Your task to perform on an android device: Open calendar and show me the first week of next month Image 0: 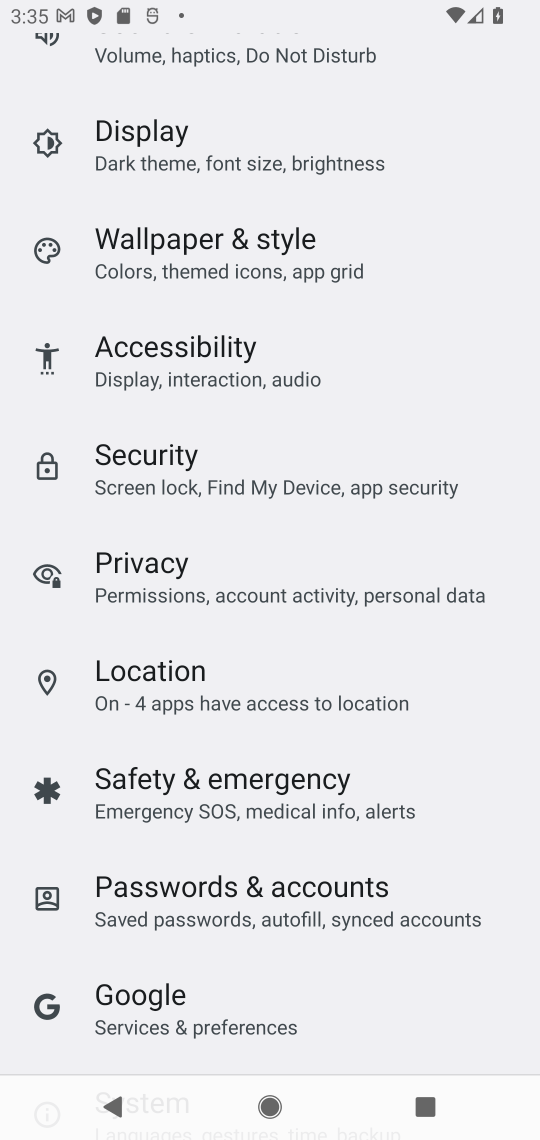
Step 0: press home button
Your task to perform on an android device: Open calendar and show me the first week of next month Image 1: 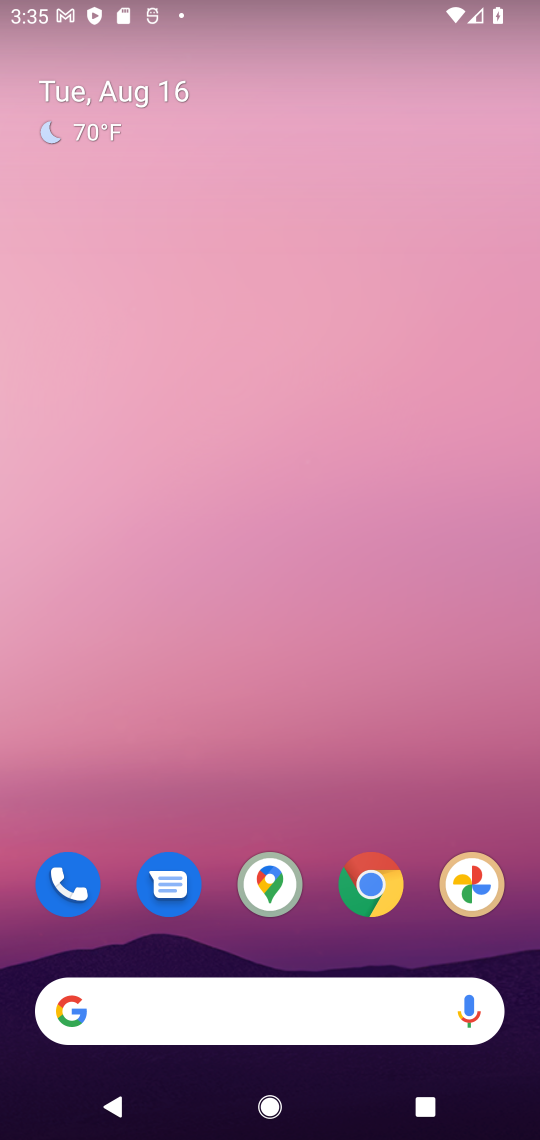
Step 1: drag from (258, 815) to (232, 223)
Your task to perform on an android device: Open calendar and show me the first week of next month Image 2: 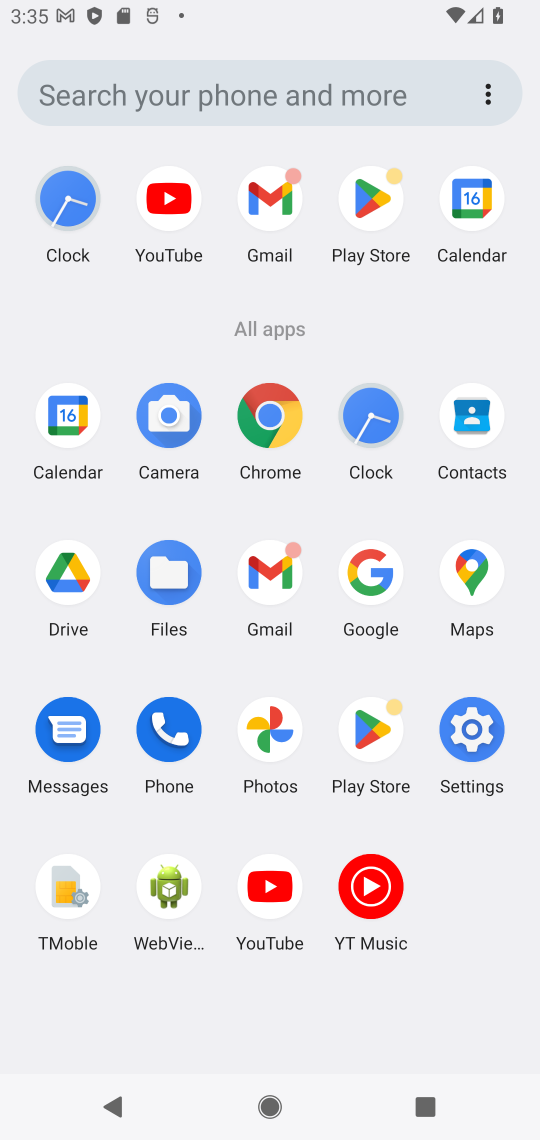
Step 2: click (455, 225)
Your task to perform on an android device: Open calendar and show me the first week of next month Image 3: 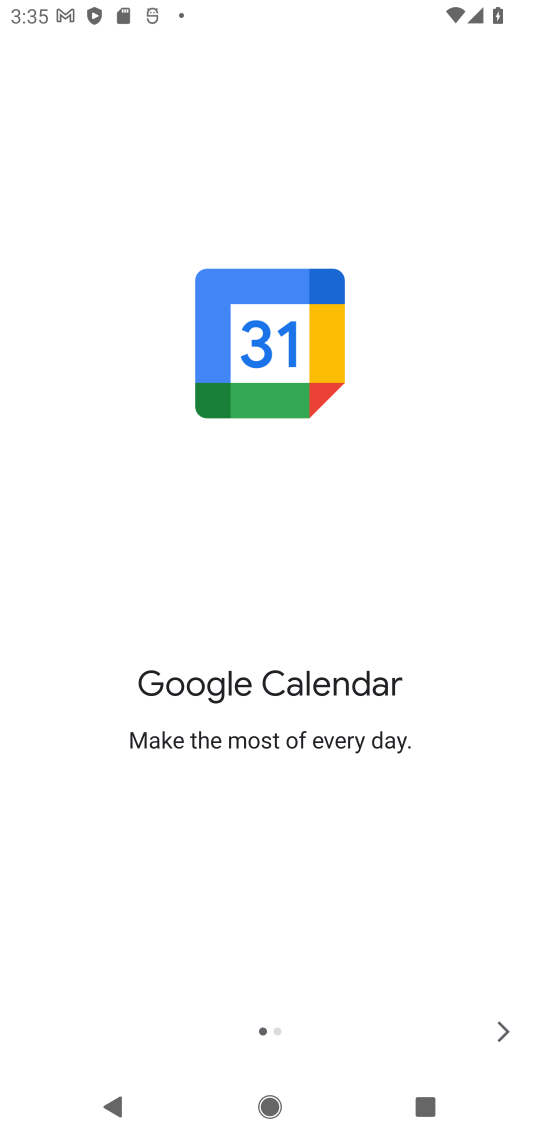
Step 3: click (496, 1039)
Your task to perform on an android device: Open calendar and show me the first week of next month Image 4: 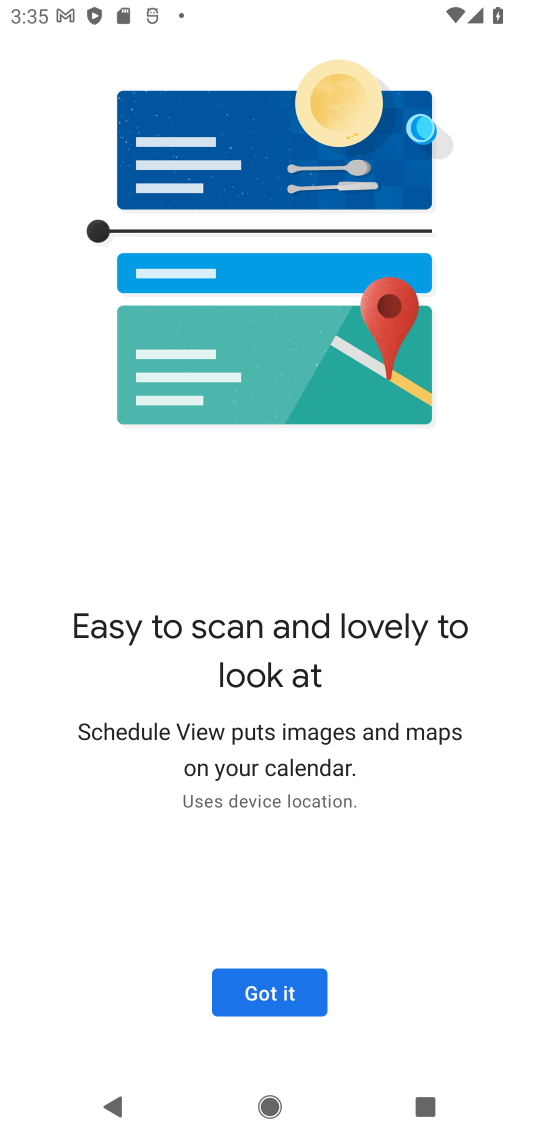
Step 4: click (311, 980)
Your task to perform on an android device: Open calendar and show me the first week of next month Image 5: 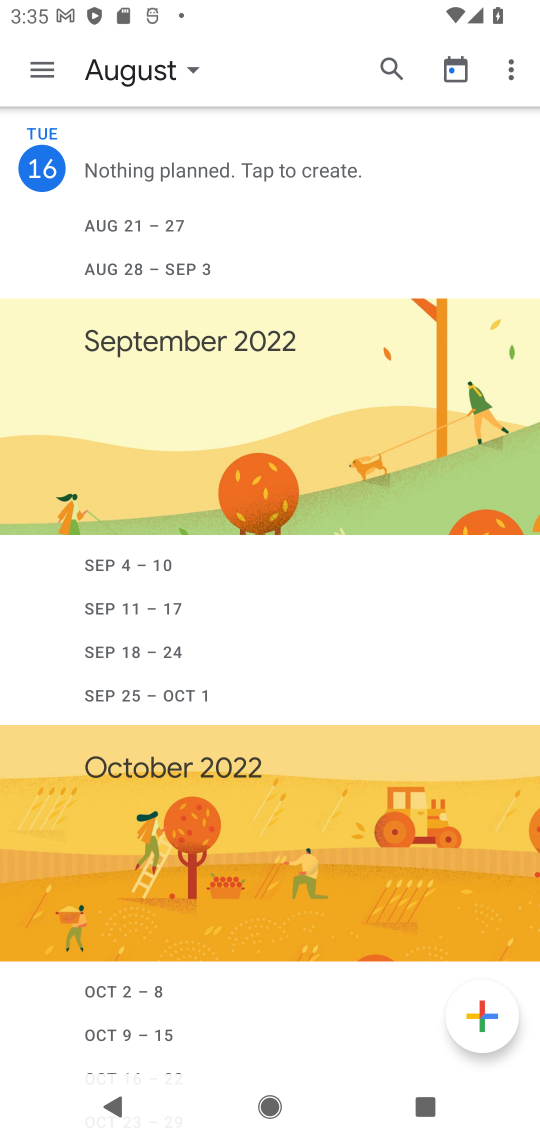
Step 5: click (184, 74)
Your task to perform on an android device: Open calendar and show me the first week of next month Image 6: 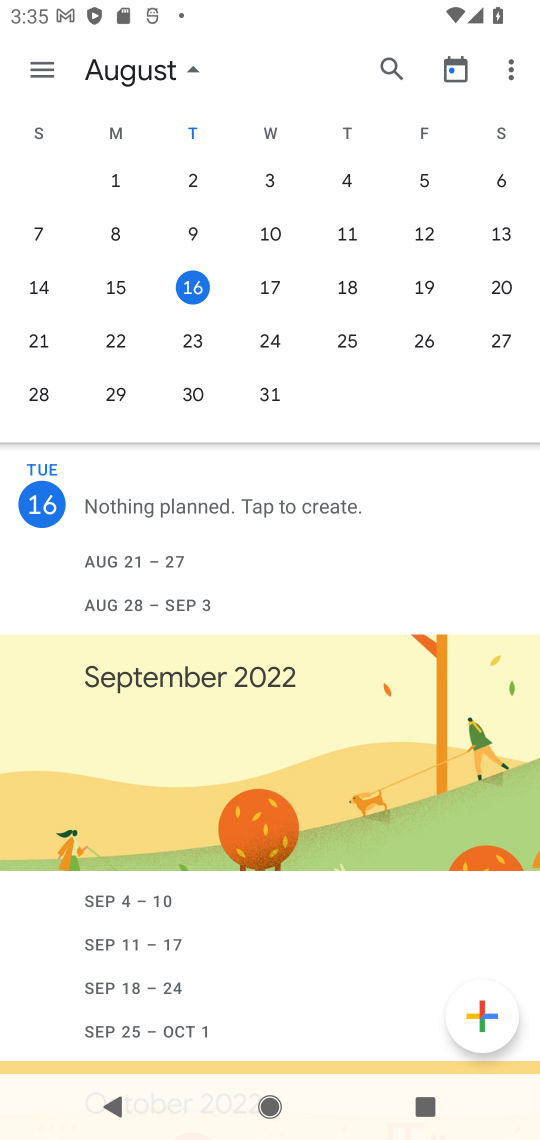
Step 6: drag from (449, 238) to (11, 219)
Your task to perform on an android device: Open calendar and show me the first week of next month Image 7: 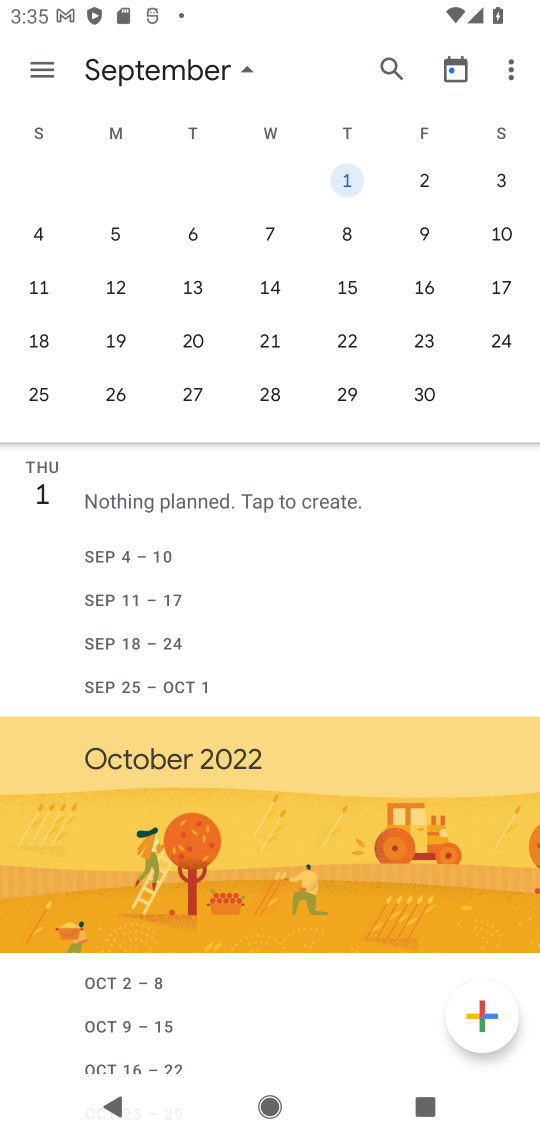
Step 7: click (340, 191)
Your task to perform on an android device: Open calendar and show me the first week of next month Image 8: 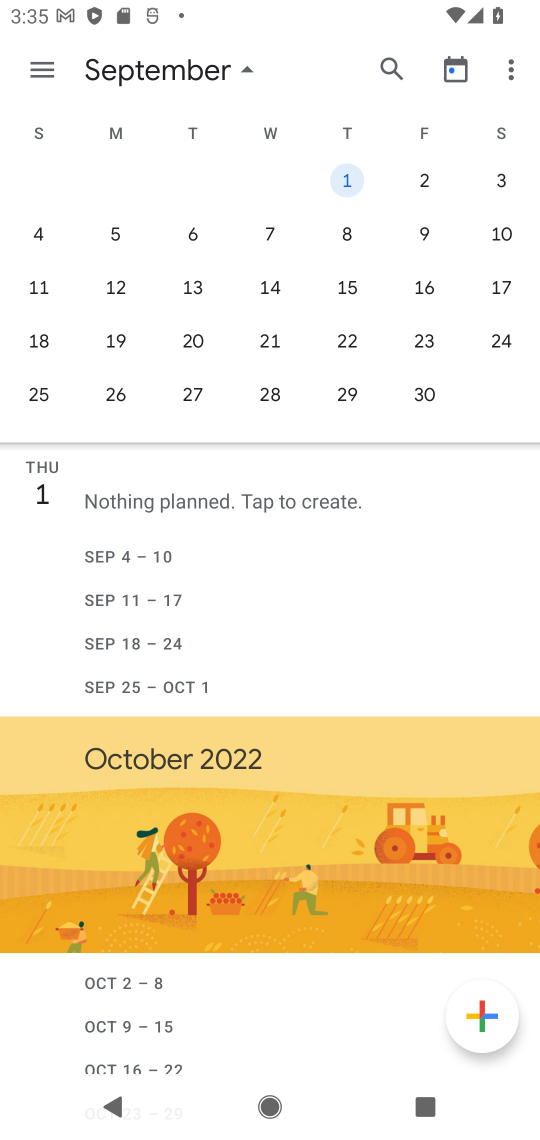
Step 8: click (432, 175)
Your task to perform on an android device: Open calendar and show me the first week of next month Image 9: 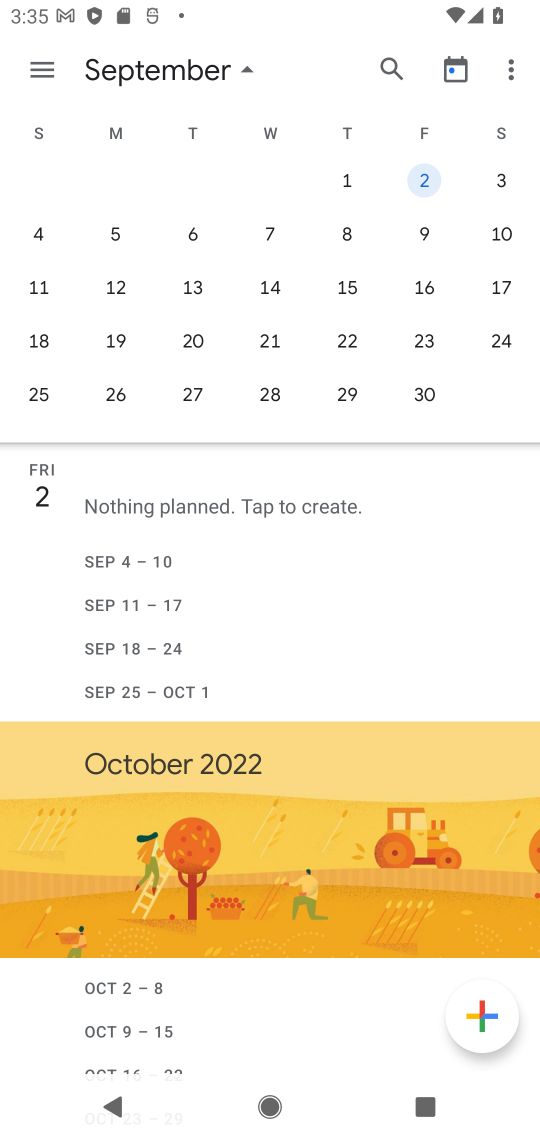
Step 9: click (340, 196)
Your task to perform on an android device: Open calendar and show me the first week of next month Image 10: 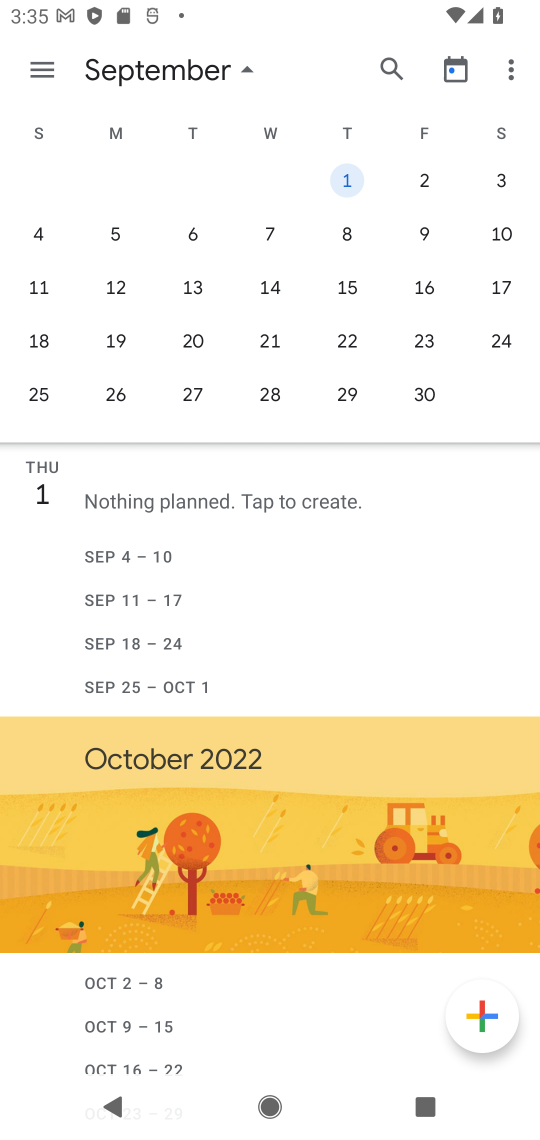
Step 10: task complete